Your task to perform on an android device: Open the map Image 0: 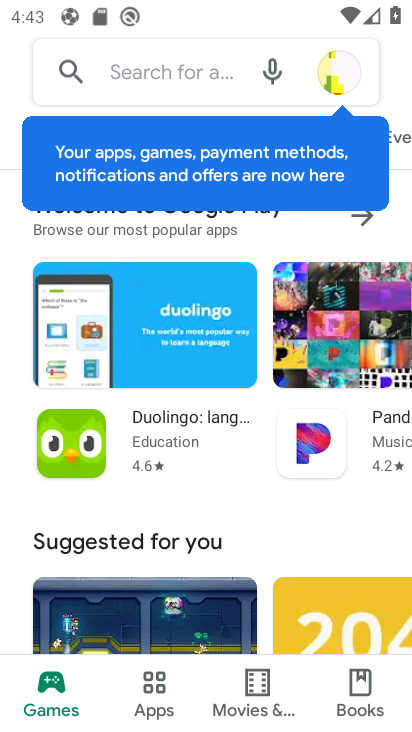
Step 0: press home button
Your task to perform on an android device: Open the map Image 1: 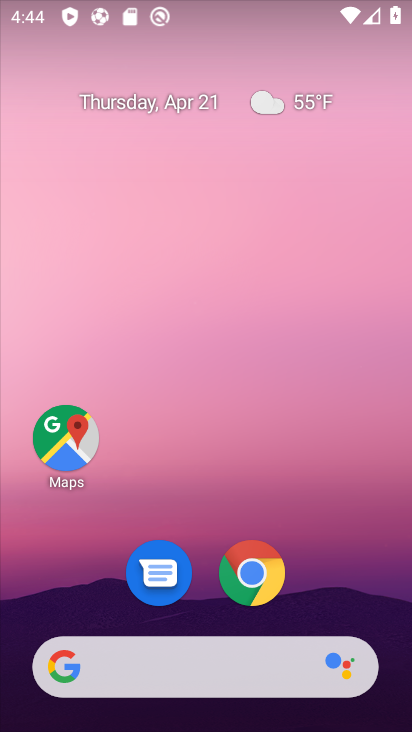
Step 1: click (73, 444)
Your task to perform on an android device: Open the map Image 2: 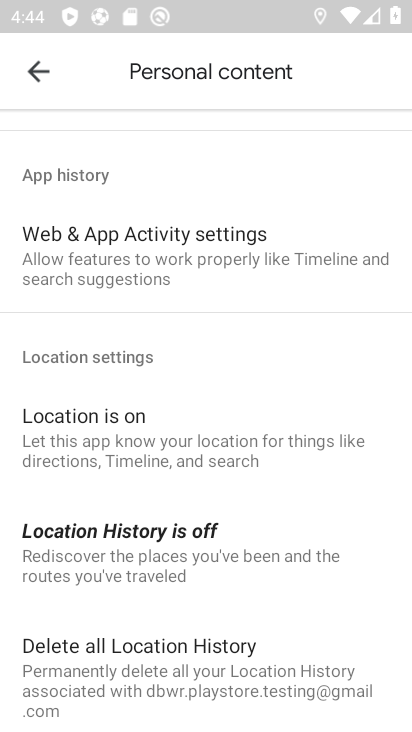
Step 2: click (43, 83)
Your task to perform on an android device: Open the map Image 3: 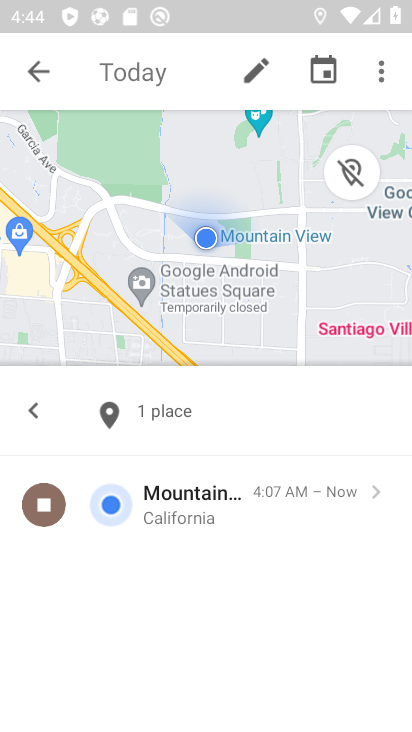
Step 3: click (43, 83)
Your task to perform on an android device: Open the map Image 4: 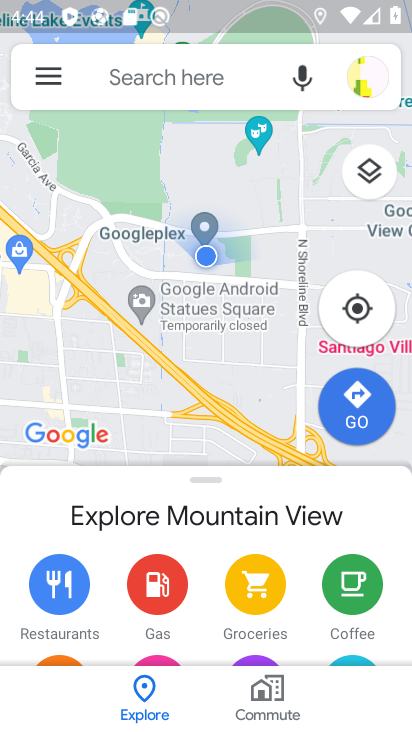
Step 4: task complete